Your task to perform on an android device: change notification settings in the gmail app Image 0: 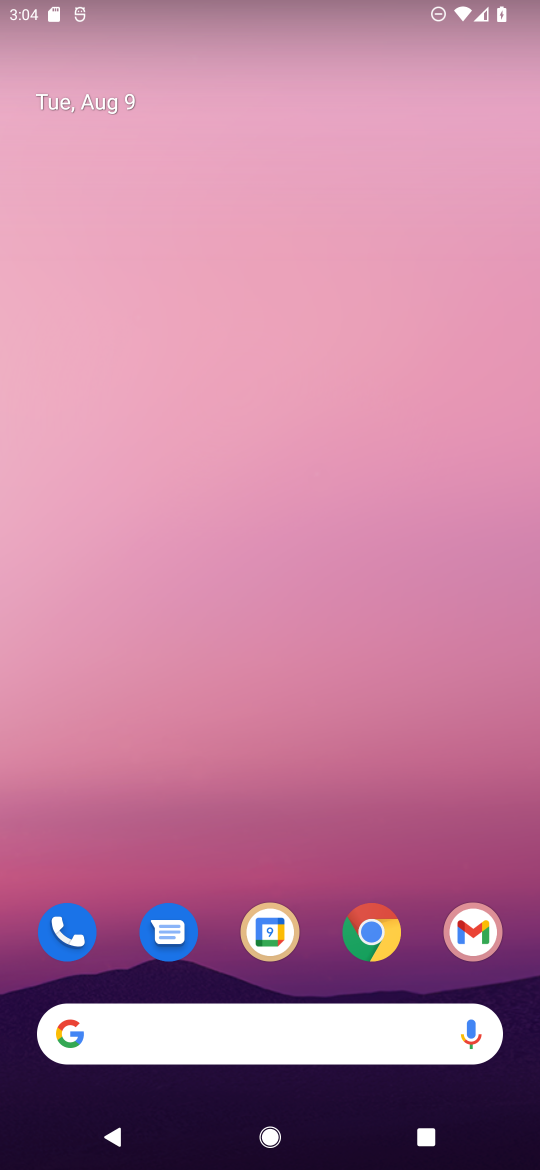
Step 0: click (471, 925)
Your task to perform on an android device: change notification settings in the gmail app Image 1: 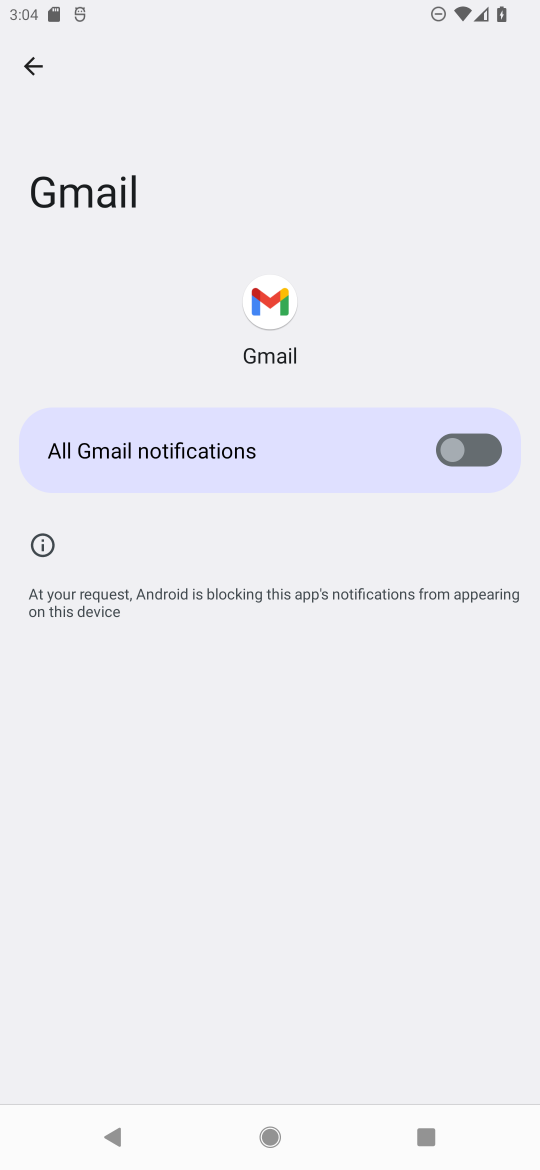
Step 1: click (470, 445)
Your task to perform on an android device: change notification settings in the gmail app Image 2: 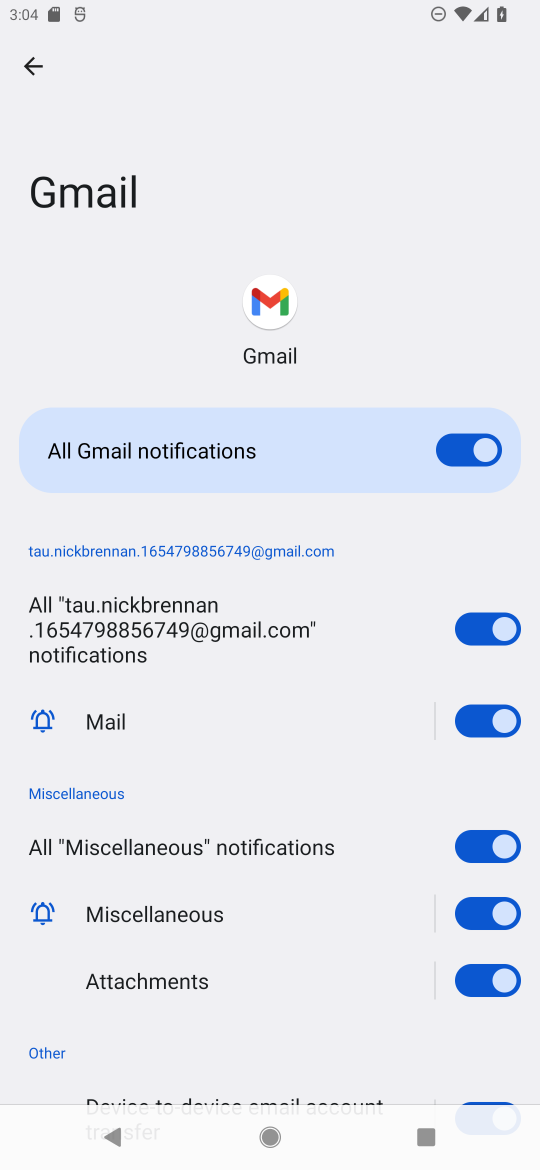
Step 2: task complete